Your task to perform on an android device: Open Wikipedia Image 0: 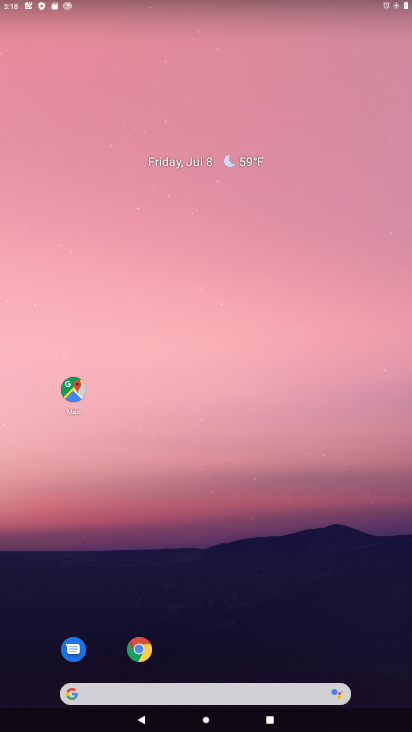
Step 0: drag from (299, 505) to (295, 80)
Your task to perform on an android device: Open Wikipedia Image 1: 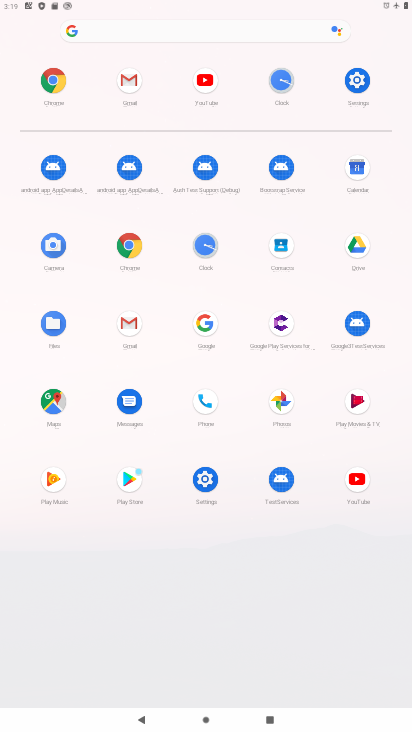
Step 1: click (129, 243)
Your task to perform on an android device: Open Wikipedia Image 2: 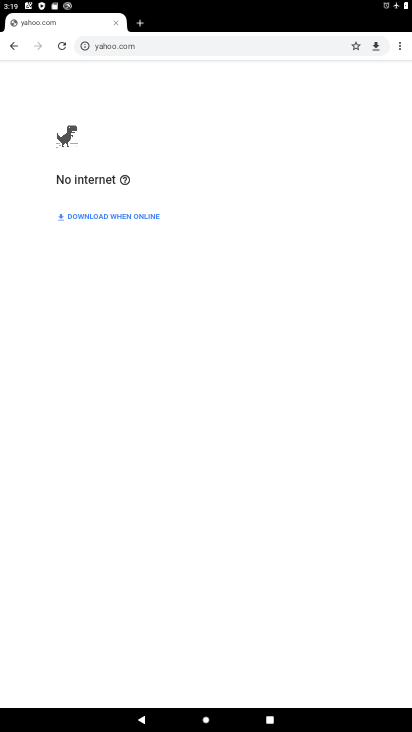
Step 2: click (182, 49)
Your task to perform on an android device: Open Wikipedia Image 3: 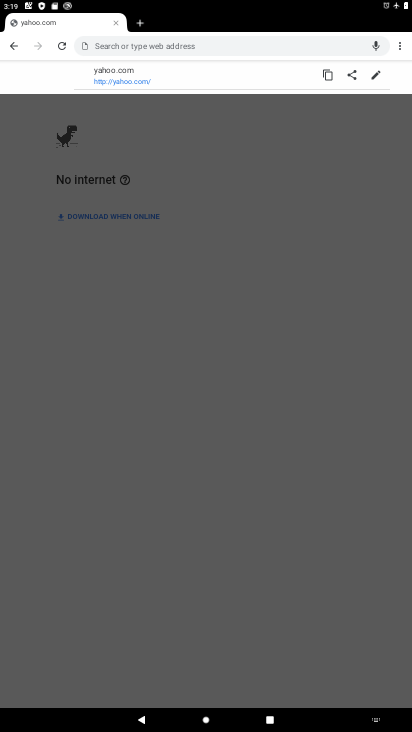
Step 3: type "wikipedia"
Your task to perform on an android device: Open Wikipedia Image 4: 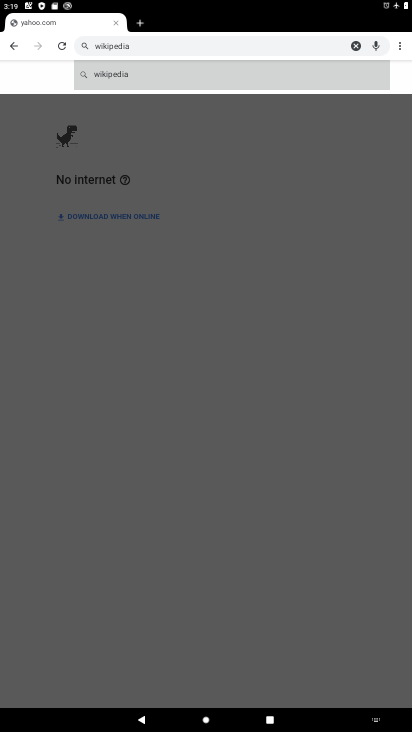
Step 4: press enter
Your task to perform on an android device: Open Wikipedia Image 5: 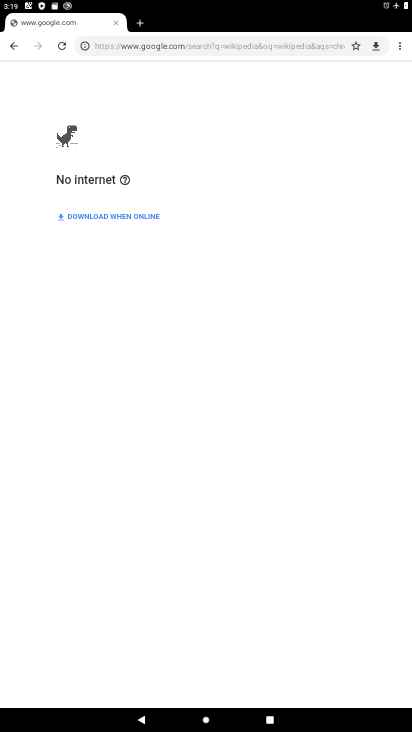
Step 5: click (265, 42)
Your task to perform on an android device: Open Wikipedia Image 6: 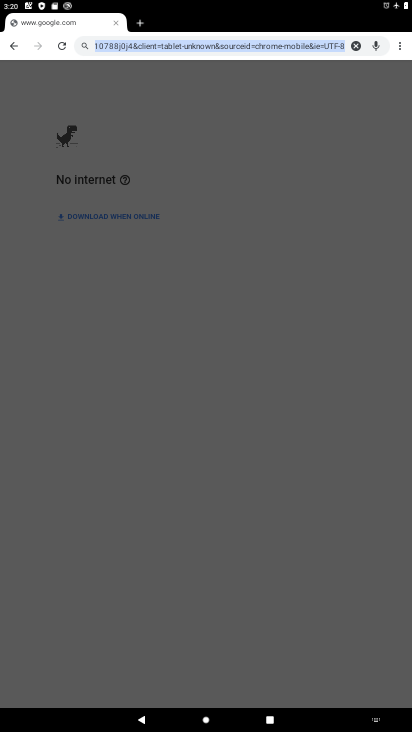
Step 6: type "wikipedia"
Your task to perform on an android device: Open Wikipedia Image 7: 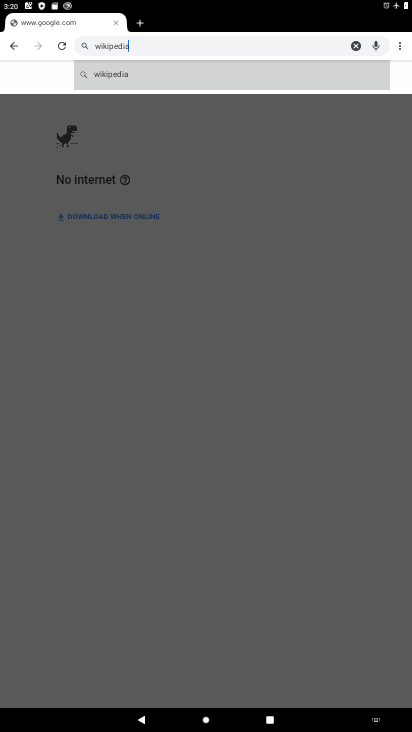
Step 7: click (133, 78)
Your task to perform on an android device: Open Wikipedia Image 8: 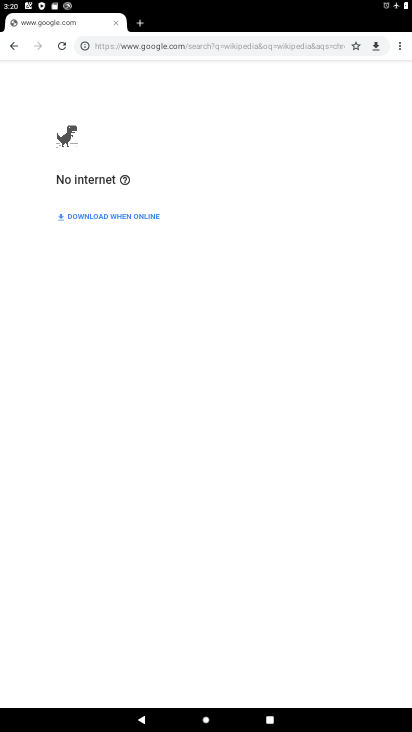
Step 8: task complete